Your task to perform on an android device: Open accessibility settings Image 0: 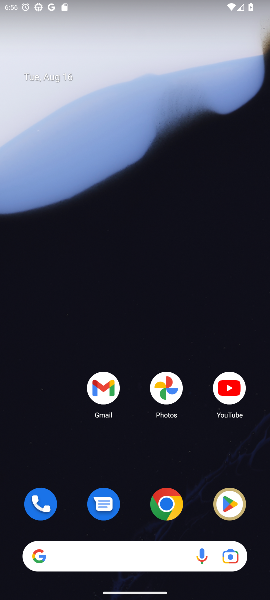
Step 0: drag from (23, 577) to (178, 124)
Your task to perform on an android device: Open accessibility settings Image 1: 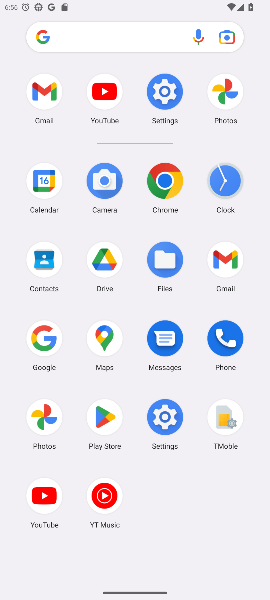
Step 1: click (166, 430)
Your task to perform on an android device: Open accessibility settings Image 2: 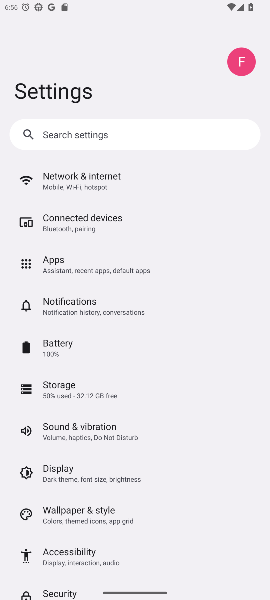
Step 2: click (73, 556)
Your task to perform on an android device: Open accessibility settings Image 3: 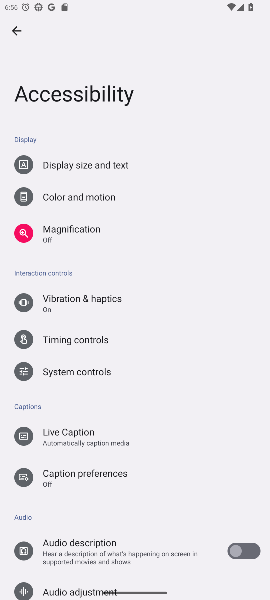
Step 3: task complete